Your task to perform on an android device: Search for sushi restaurants on Maps Image 0: 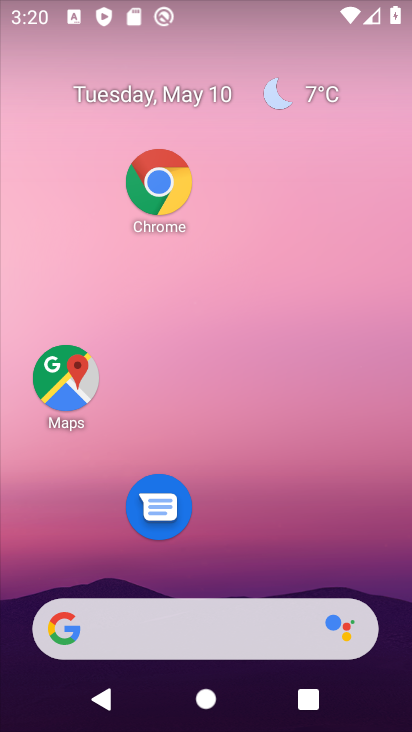
Step 0: click (60, 388)
Your task to perform on an android device: Search for sushi restaurants on Maps Image 1: 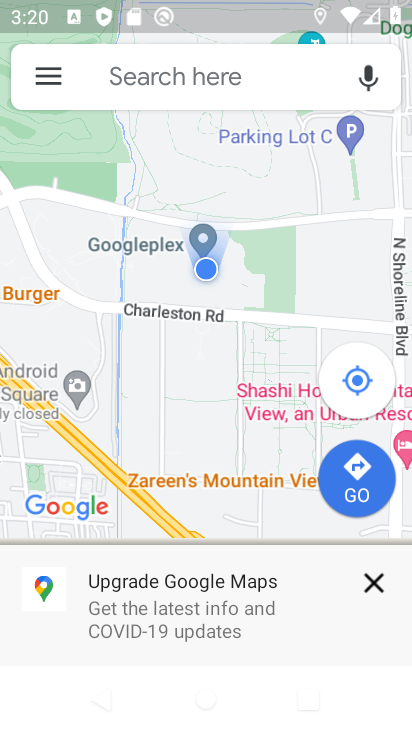
Step 1: click (155, 79)
Your task to perform on an android device: Search for sushi restaurants on Maps Image 2: 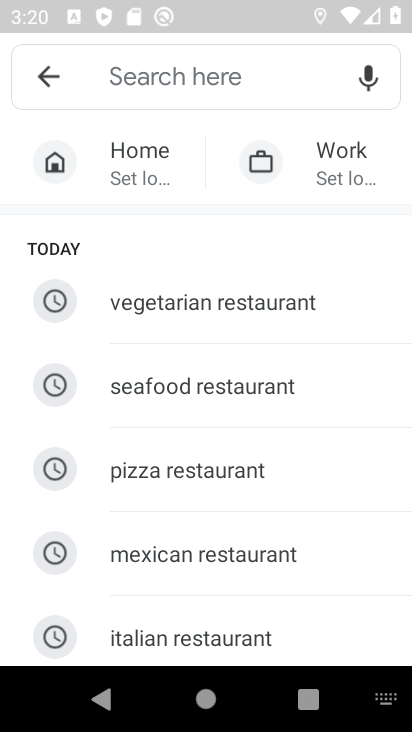
Step 2: type "sishi "
Your task to perform on an android device: Search for sushi restaurants on Maps Image 3: 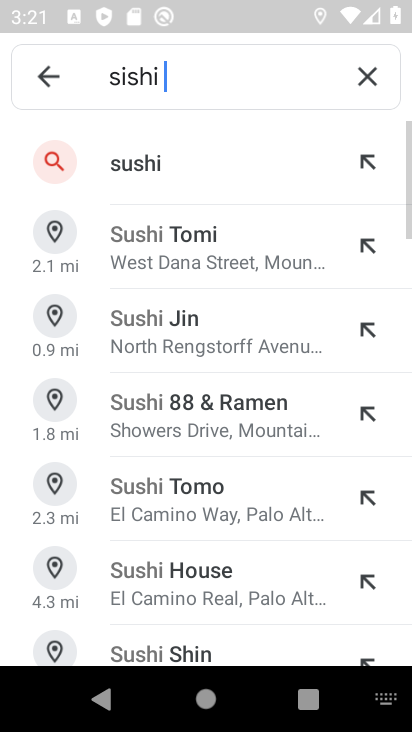
Step 3: click (170, 235)
Your task to perform on an android device: Search for sushi restaurants on Maps Image 4: 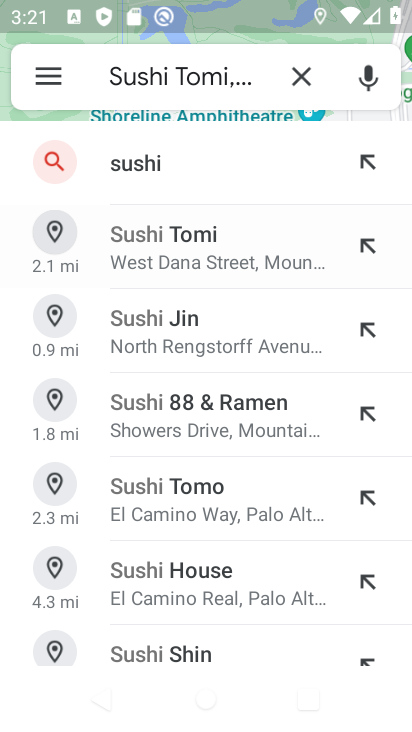
Step 4: task complete